Your task to perform on an android device: uninstall "Adobe Acrobat Reader: Edit PDF" Image 0: 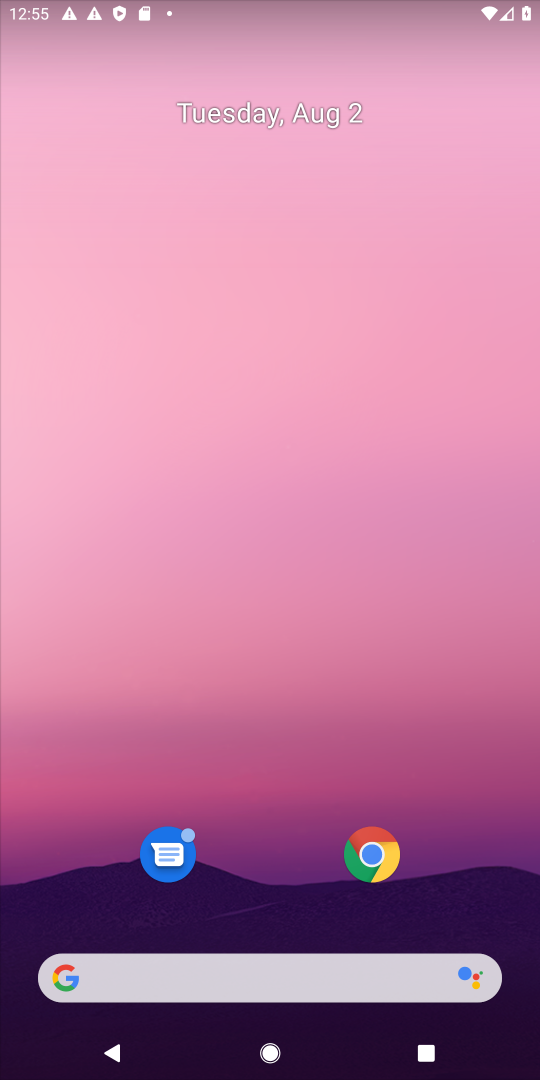
Step 0: drag from (305, 992) to (339, 375)
Your task to perform on an android device: uninstall "Adobe Acrobat Reader: Edit PDF" Image 1: 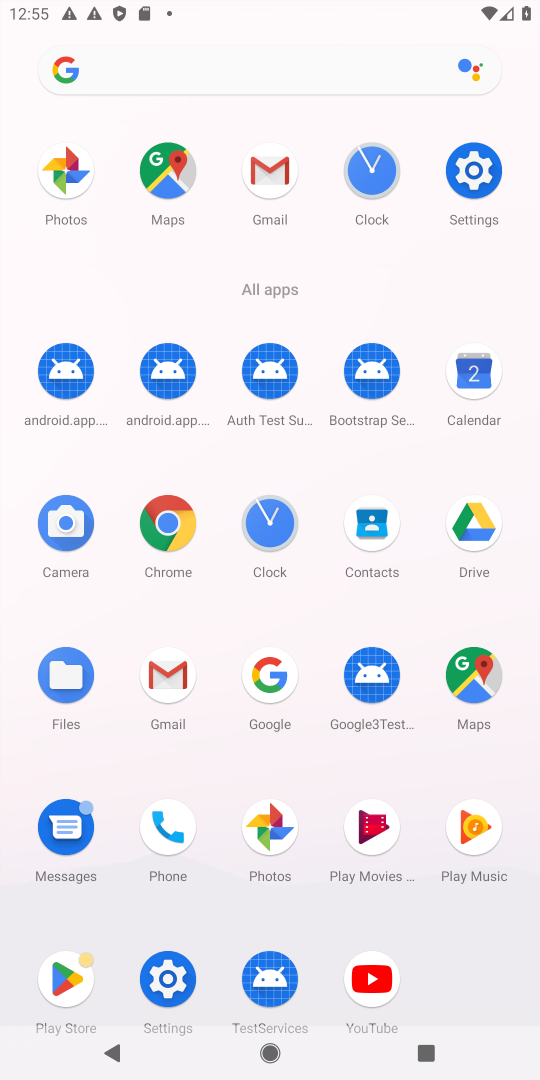
Step 1: click (58, 969)
Your task to perform on an android device: uninstall "Adobe Acrobat Reader: Edit PDF" Image 2: 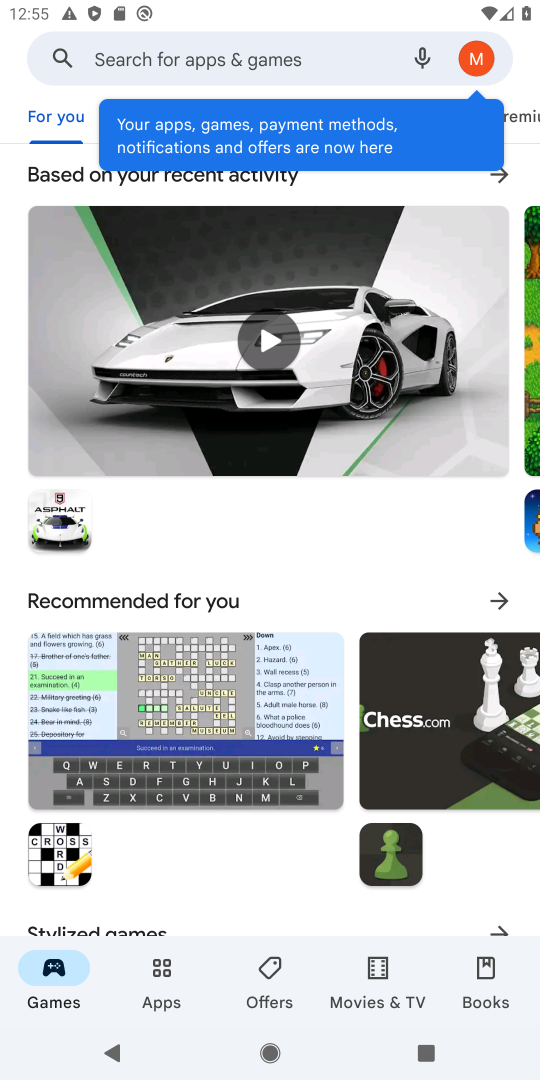
Step 2: click (223, 55)
Your task to perform on an android device: uninstall "Adobe Acrobat Reader: Edit PDF" Image 3: 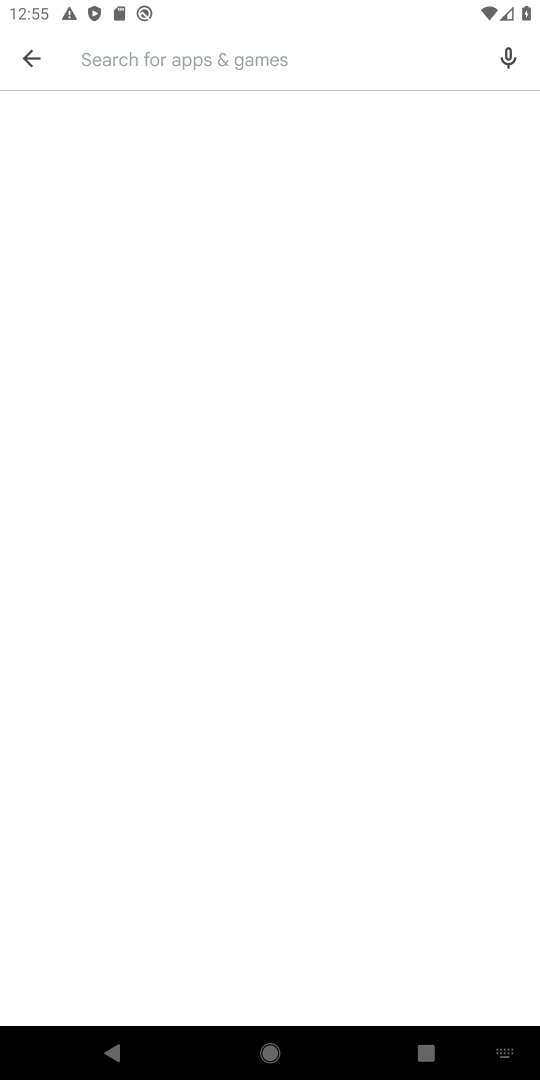
Step 3: type "Adobe Acrobat Reader: Edit PDF"
Your task to perform on an android device: uninstall "Adobe Acrobat Reader: Edit PDF" Image 4: 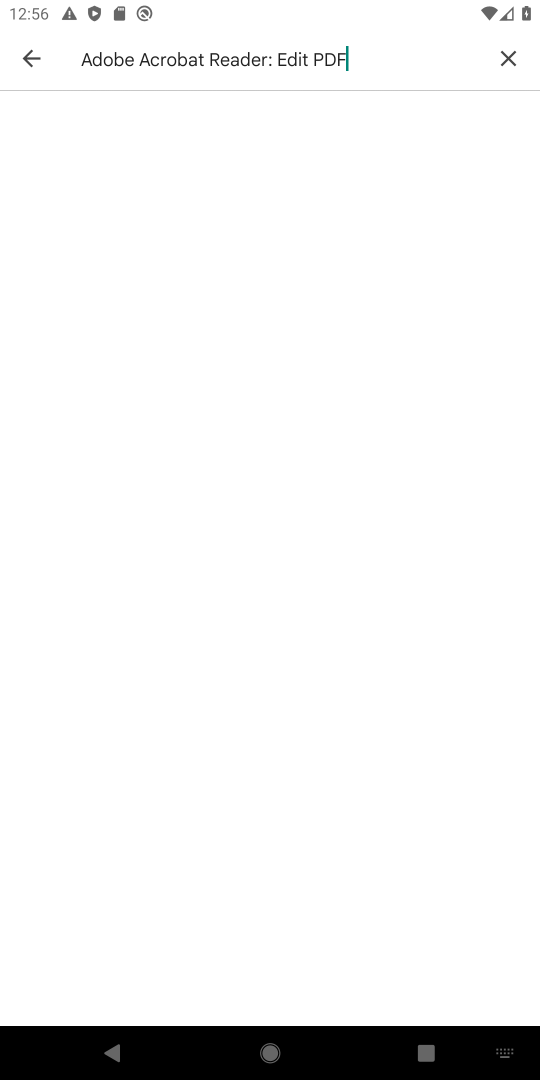
Step 4: type ""
Your task to perform on an android device: uninstall "Adobe Acrobat Reader: Edit PDF" Image 5: 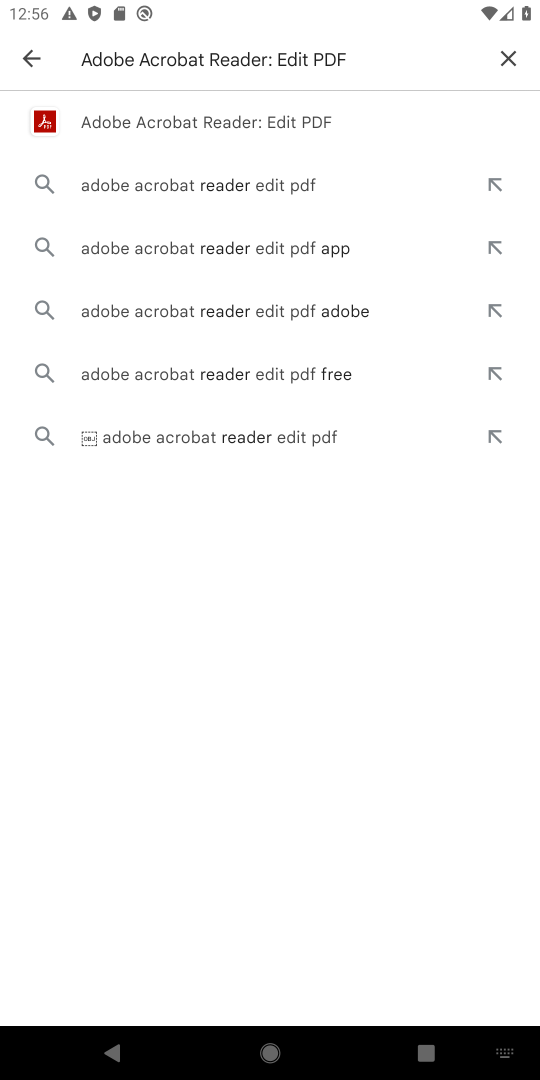
Step 5: click (238, 116)
Your task to perform on an android device: uninstall "Adobe Acrobat Reader: Edit PDF" Image 6: 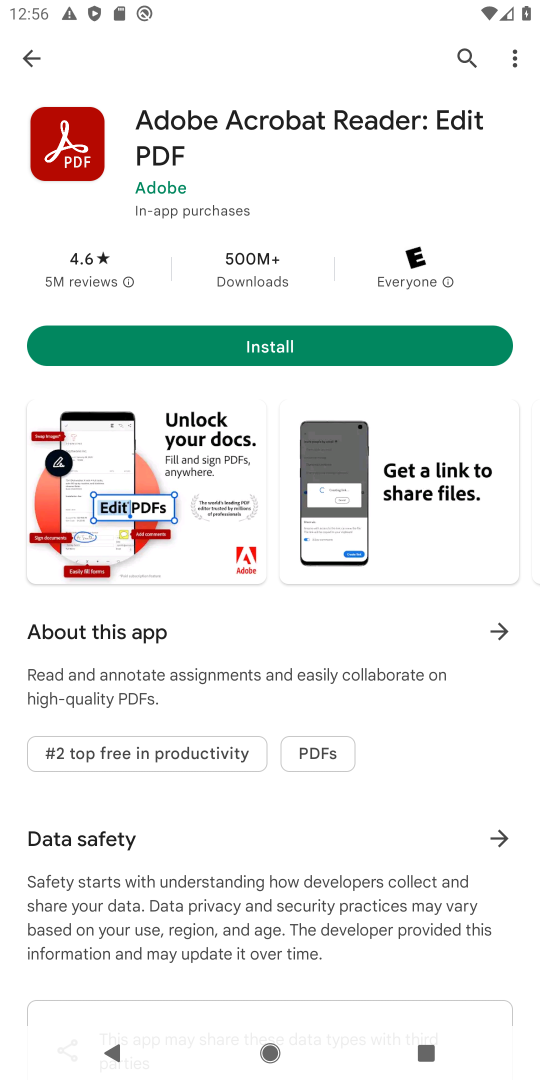
Step 6: task complete